Your task to perform on an android device: Open battery settings Image 0: 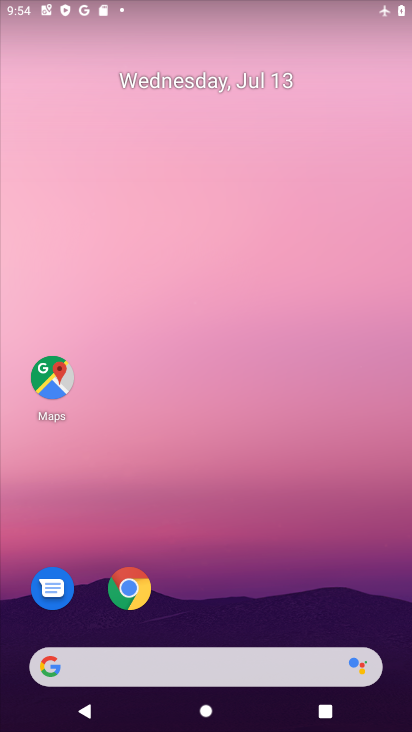
Step 0: drag from (205, 604) to (228, 166)
Your task to perform on an android device: Open battery settings Image 1: 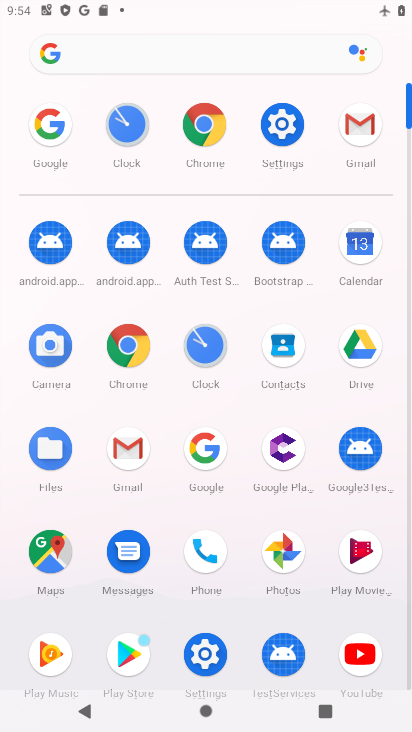
Step 1: click (286, 119)
Your task to perform on an android device: Open battery settings Image 2: 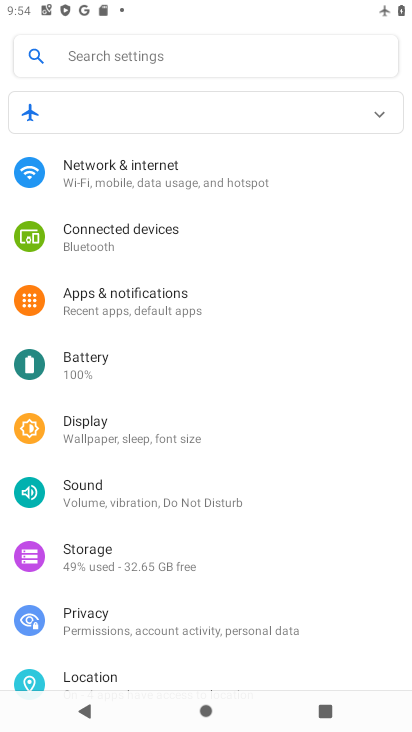
Step 2: click (73, 370)
Your task to perform on an android device: Open battery settings Image 3: 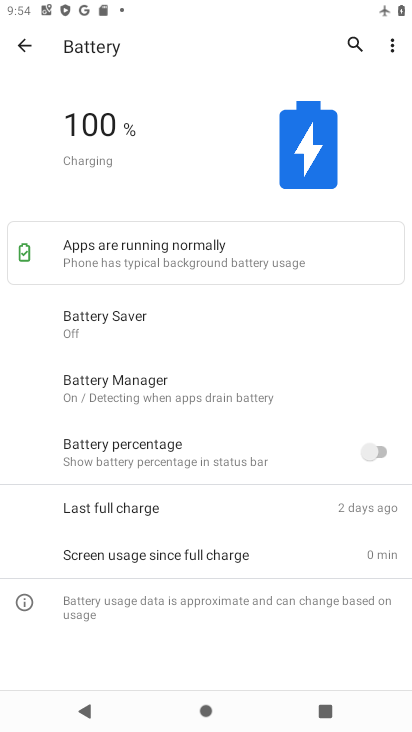
Step 3: task complete